Your task to perform on an android device: set the stopwatch Image 0: 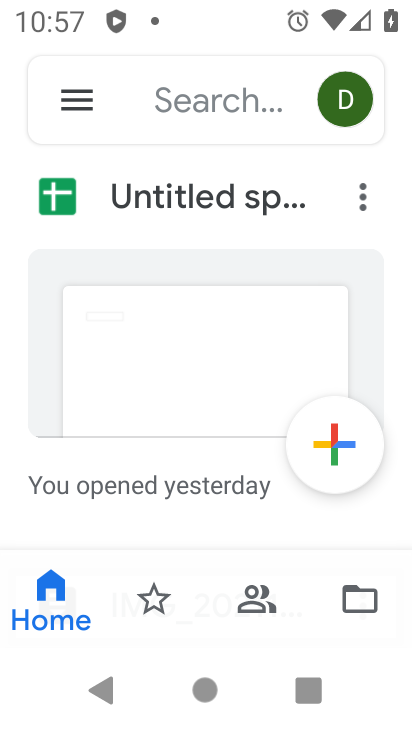
Step 0: press home button
Your task to perform on an android device: set the stopwatch Image 1: 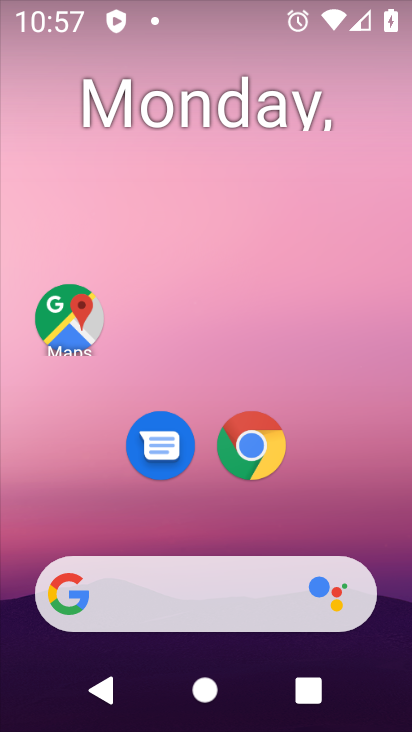
Step 1: drag from (304, 503) to (77, 106)
Your task to perform on an android device: set the stopwatch Image 2: 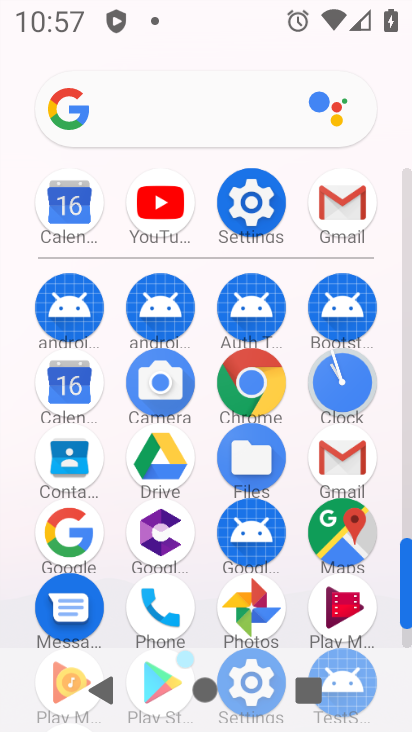
Step 2: click (335, 376)
Your task to perform on an android device: set the stopwatch Image 3: 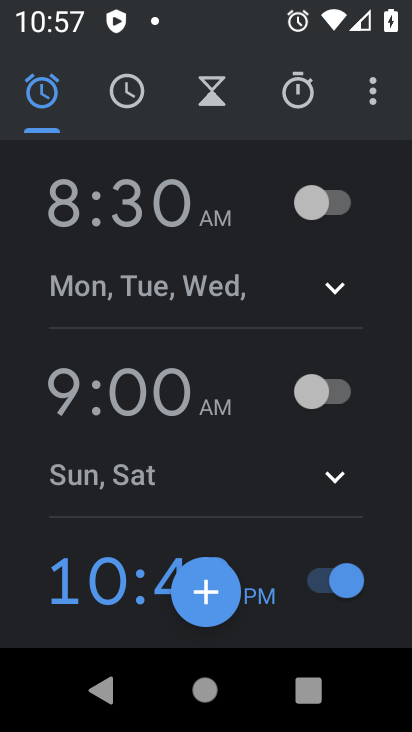
Step 3: click (297, 102)
Your task to perform on an android device: set the stopwatch Image 4: 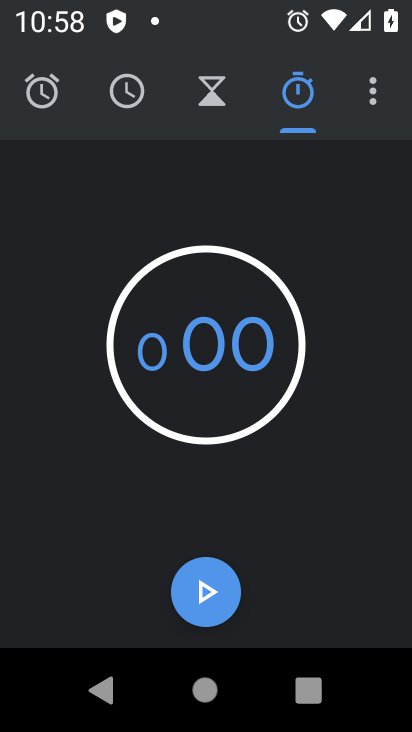
Step 4: click (209, 587)
Your task to perform on an android device: set the stopwatch Image 5: 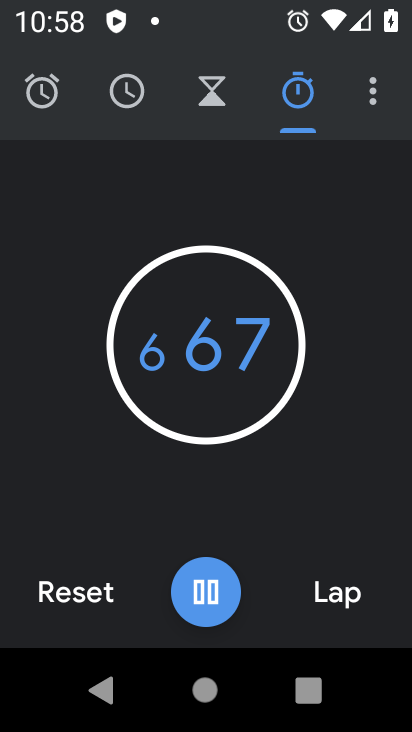
Step 5: task complete